Your task to perform on an android device: Go to Maps Image 0: 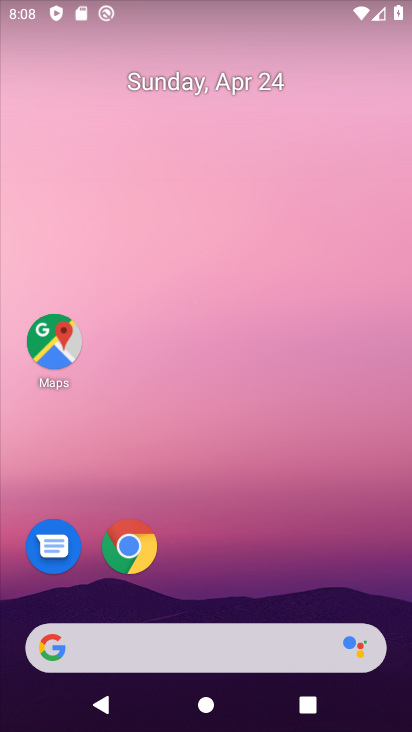
Step 0: click (62, 341)
Your task to perform on an android device: Go to Maps Image 1: 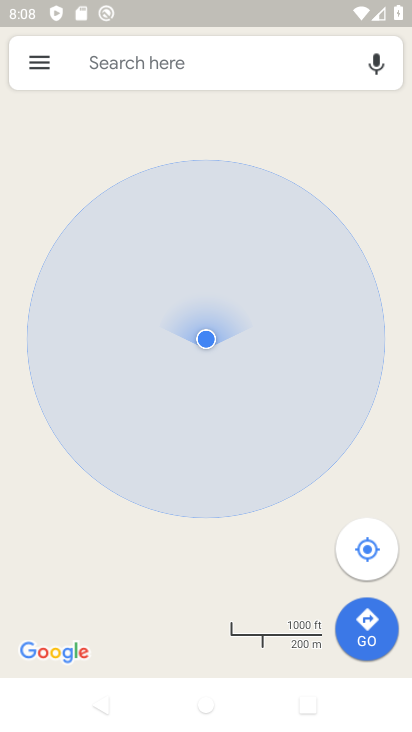
Step 1: task complete